Your task to perform on an android device: turn vacation reply on in the gmail app Image 0: 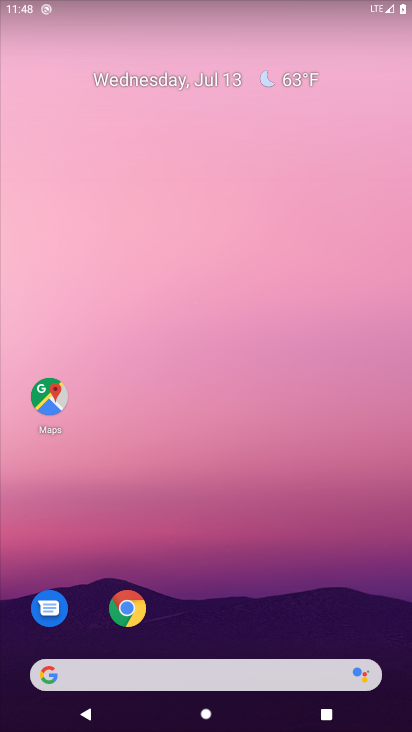
Step 0: press home button
Your task to perform on an android device: turn vacation reply on in the gmail app Image 1: 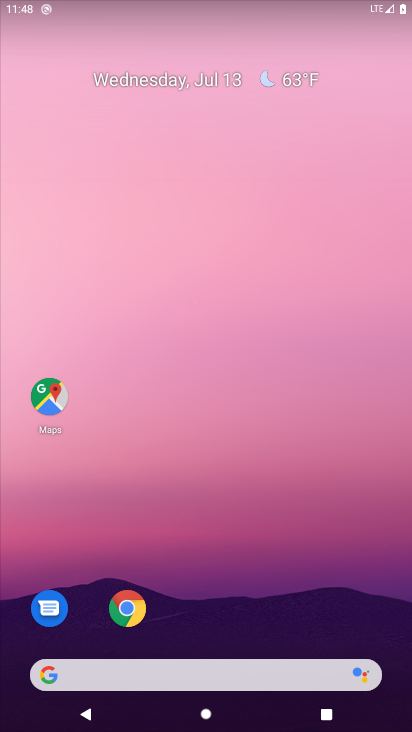
Step 1: drag from (224, 636) to (130, 6)
Your task to perform on an android device: turn vacation reply on in the gmail app Image 2: 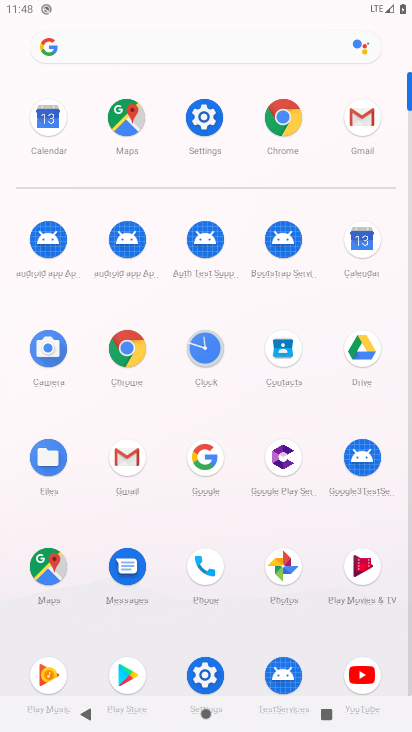
Step 2: click (157, 461)
Your task to perform on an android device: turn vacation reply on in the gmail app Image 3: 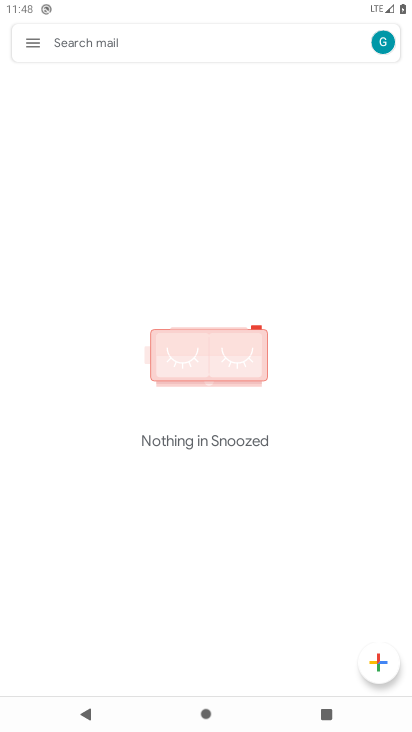
Step 3: click (40, 31)
Your task to perform on an android device: turn vacation reply on in the gmail app Image 4: 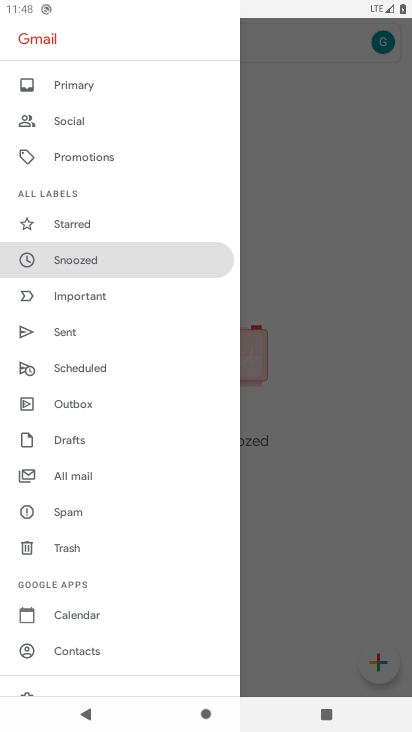
Step 4: drag from (64, 637) to (119, 175)
Your task to perform on an android device: turn vacation reply on in the gmail app Image 5: 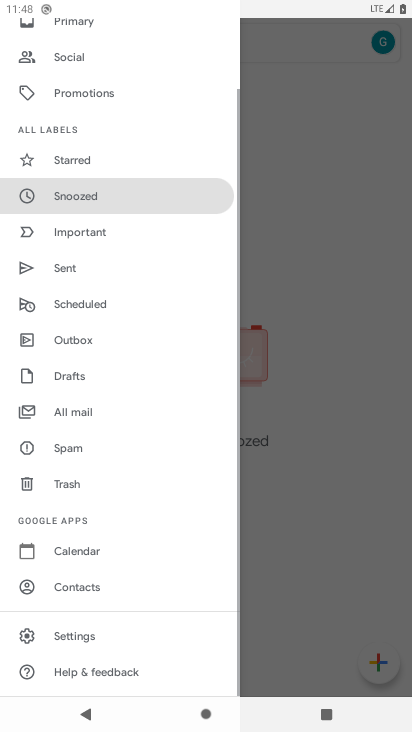
Step 5: click (112, 629)
Your task to perform on an android device: turn vacation reply on in the gmail app Image 6: 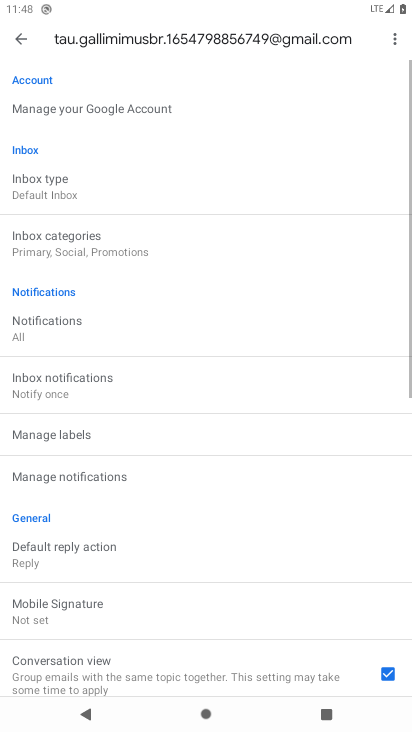
Step 6: drag from (112, 629) to (111, 248)
Your task to perform on an android device: turn vacation reply on in the gmail app Image 7: 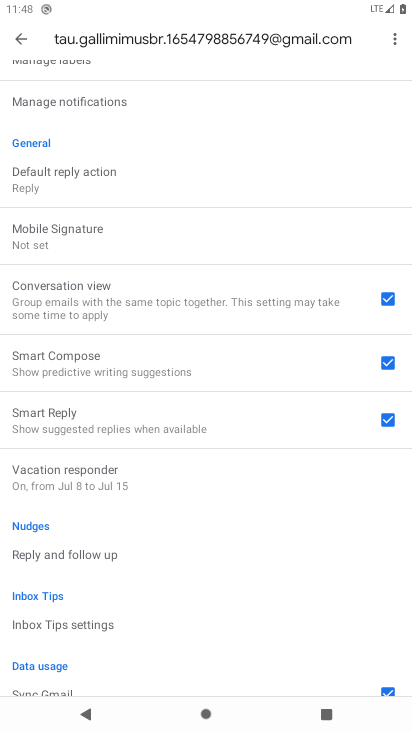
Step 7: click (100, 452)
Your task to perform on an android device: turn vacation reply on in the gmail app Image 8: 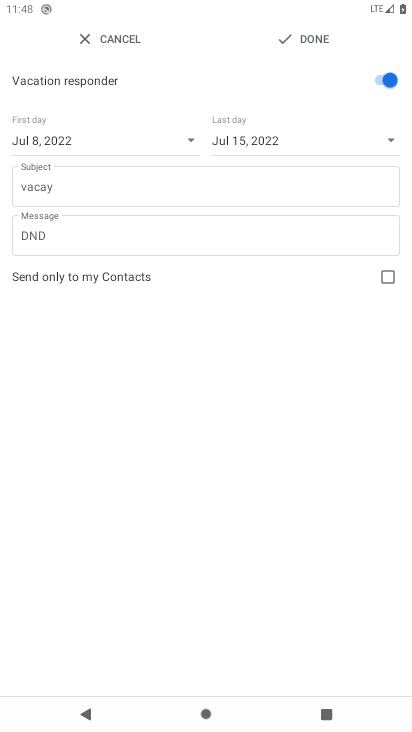
Step 8: click (56, 139)
Your task to perform on an android device: turn vacation reply on in the gmail app Image 9: 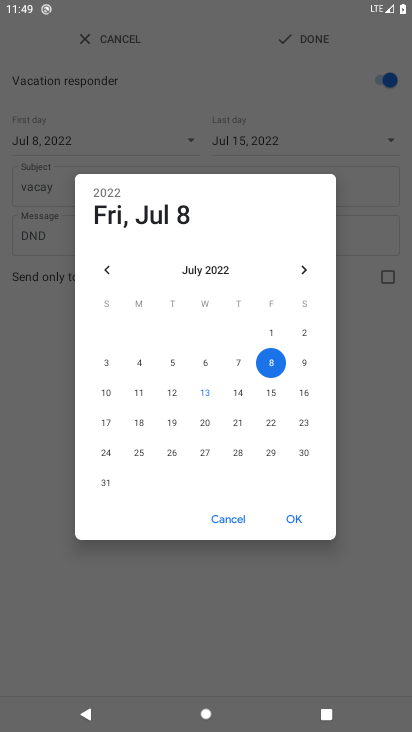
Step 9: click (238, 392)
Your task to perform on an android device: turn vacation reply on in the gmail app Image 10: 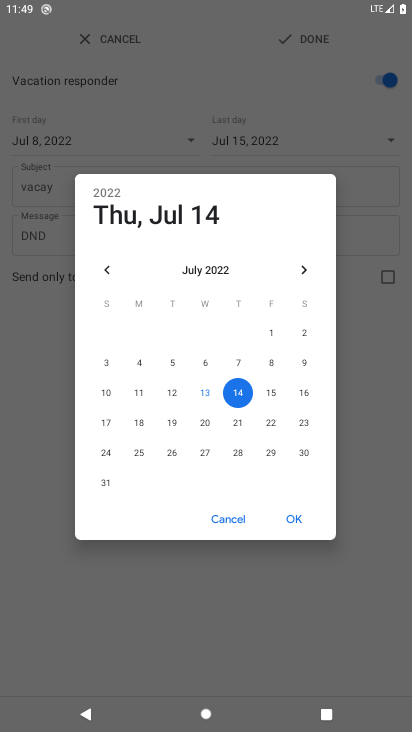
Step 10: click (291, 514)
Your task to perform on an android device: turn vacation reply on in the gmail app Image 11: 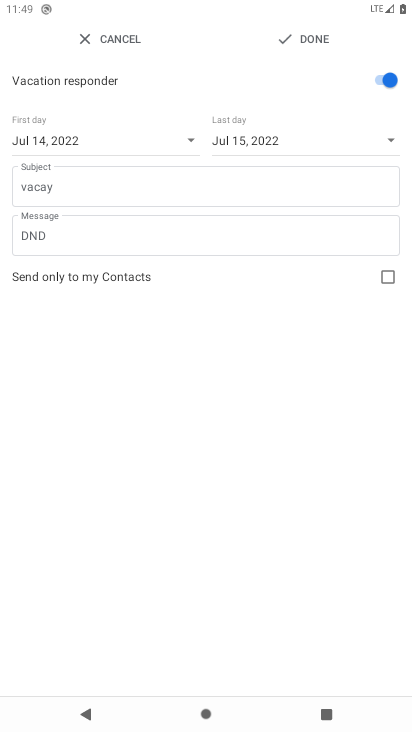
Step 11: click (294, 44)
Your task to perform on an android device: turn vacation reply on in the gmail app Image 12: 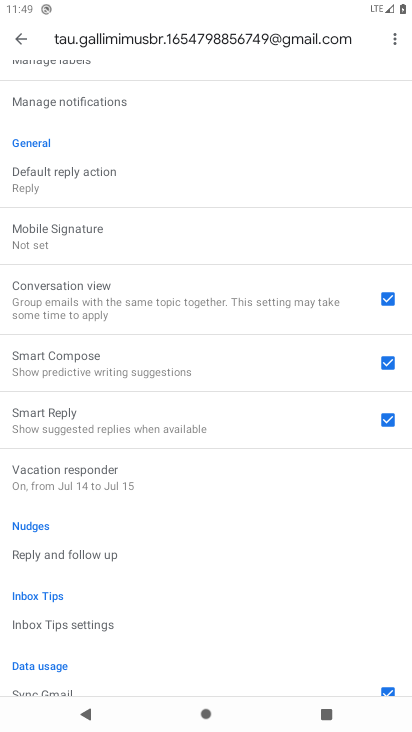
Step 12: task complete